Your task to perform on an android device: Open Chrome and go to settings Image 0: 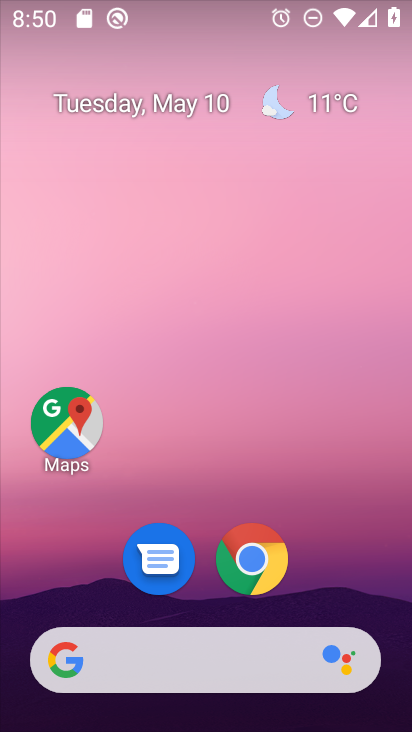
Step 0: click (245, 566)
Your task to perform on an android device: Open Chrome and go to settings Image 1: 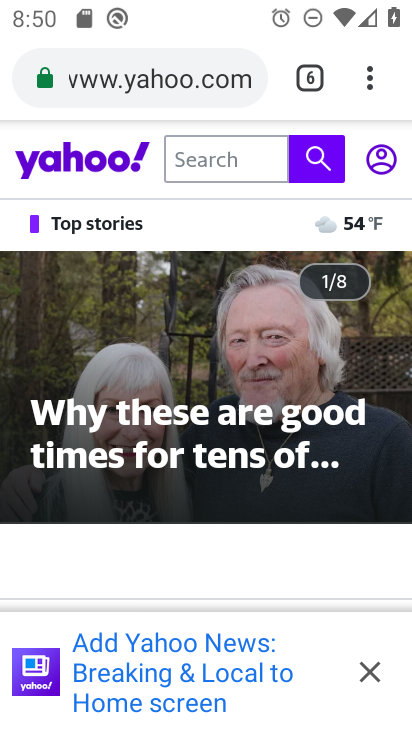
Step 1: click (369, 85)
Your task to perform on an android device: Open Chrome and go to settings Image 2: 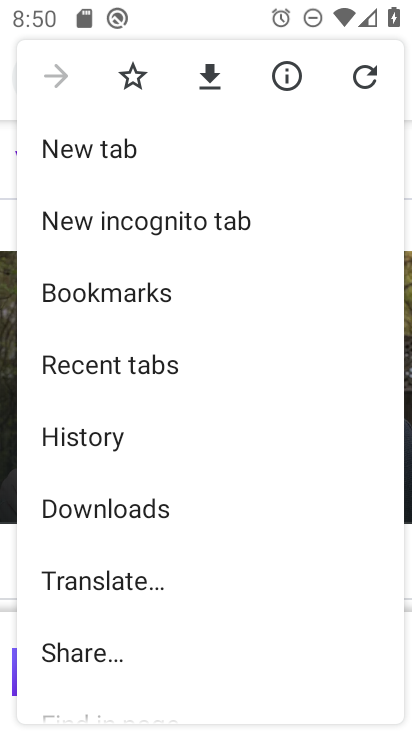
Step 2: drag from (162, 672) to (170, 296)
Your task to perform on an android device: Open Chrome and go to settings Image 3: 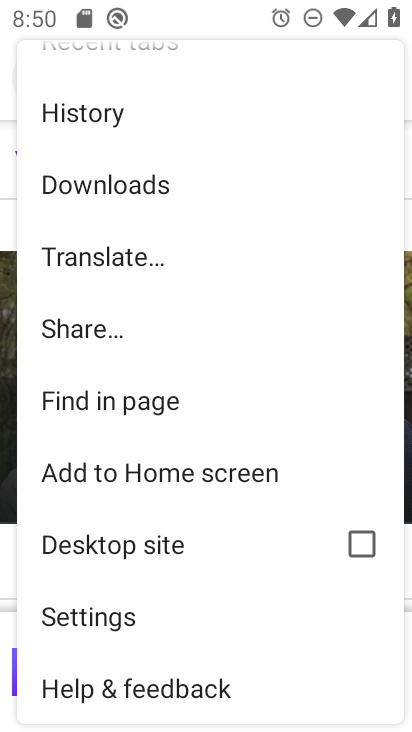
Step 3: click (84, 616)
Your task to perform on an android device: Open Chrome and go to settings Image 4: 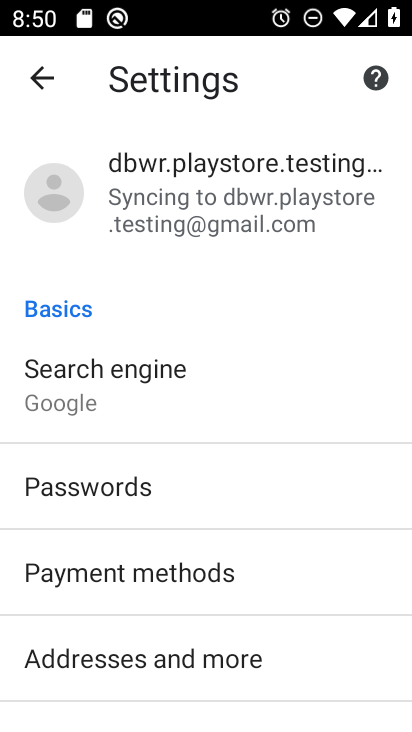
Step 4: task complete